Your task to perform on an android device: open a bookmark in the chrome app Image 0: 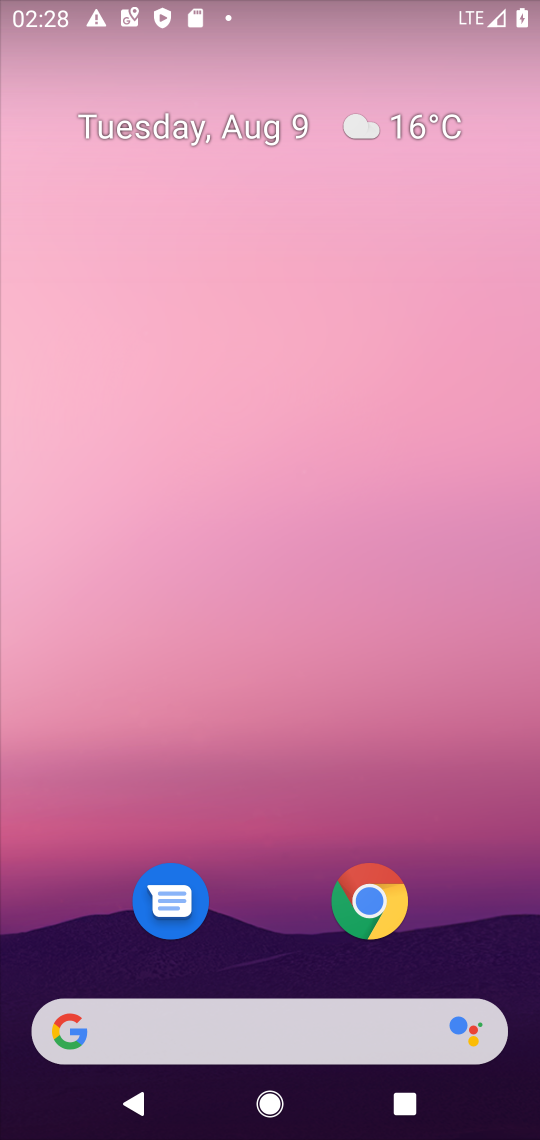
Step 0: click (369, 905)
Your task to perform on an android device: open a bookmark in the chrome app Image 1: 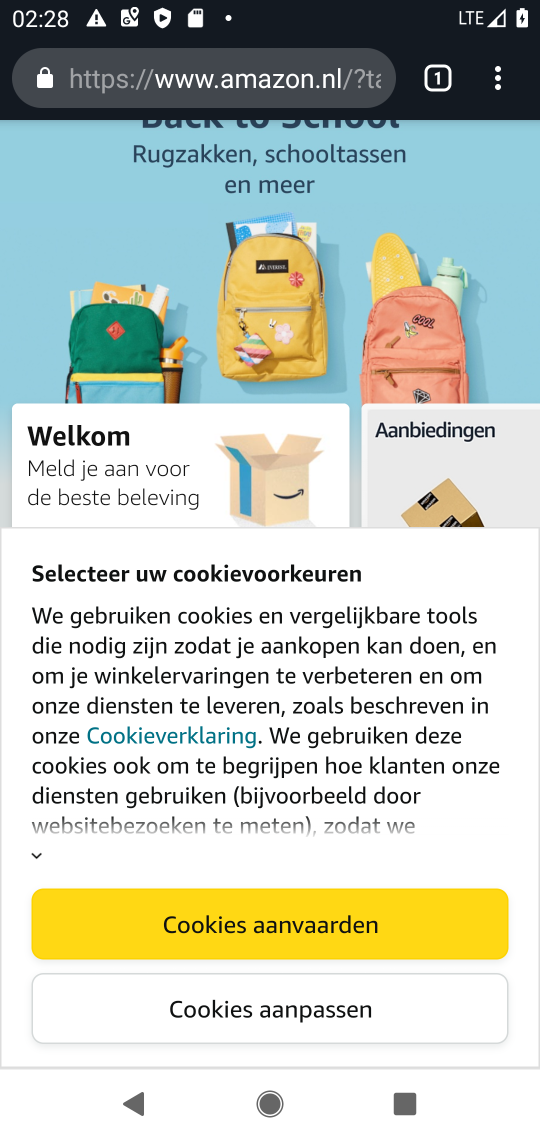
Step 1: click (489, 82)
Your task to perform on an android device: open a bookmark in the chrome app Image 2: 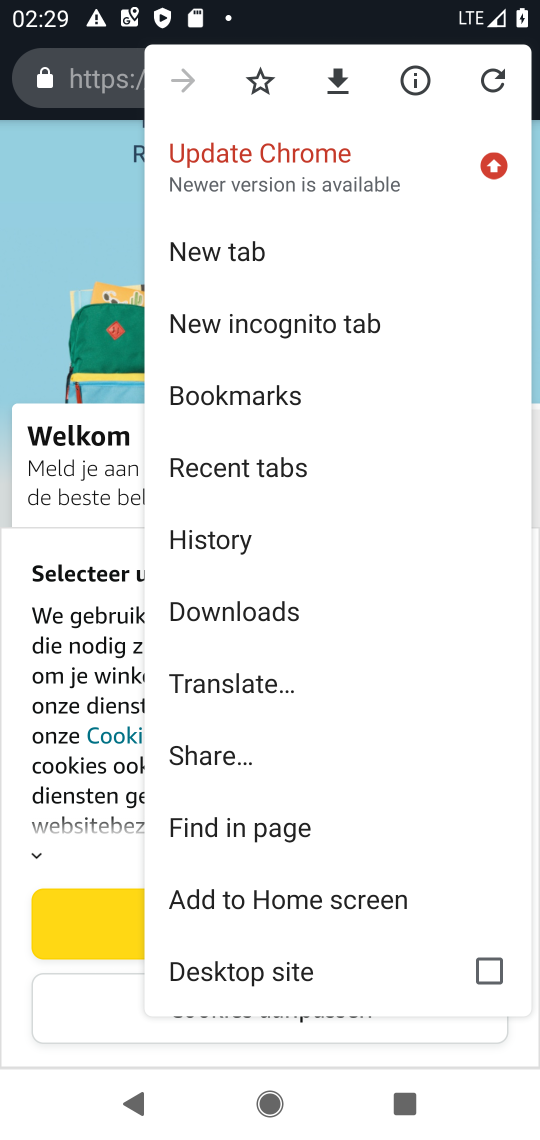
Step 2: click (242, 403)
Your task to perform on an android device: open a bookmark in the chrome app Image 3: 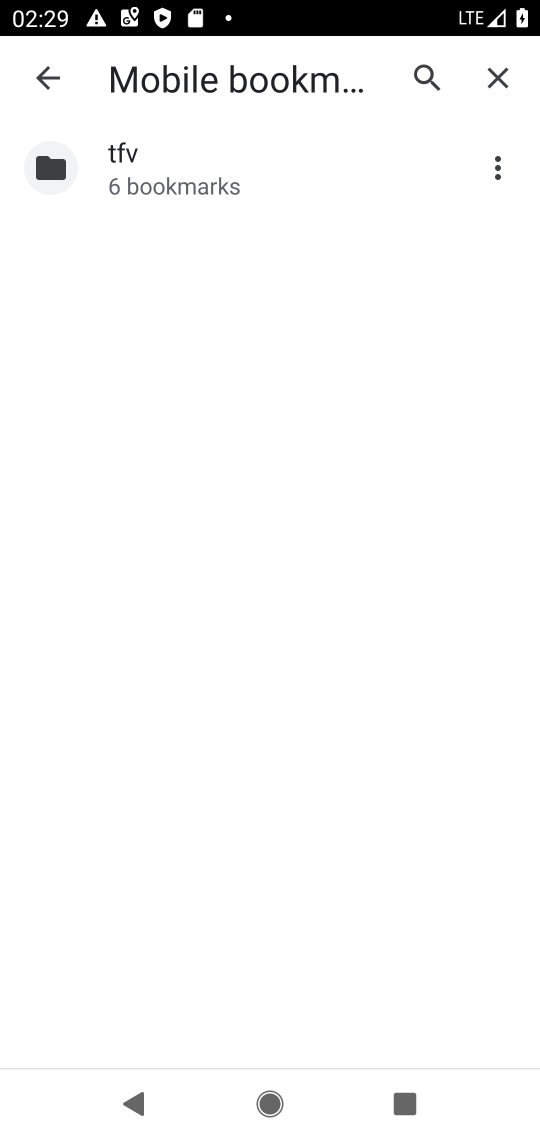
Step 3: task complete